Your task to perform on an android device: check out phone information Image 0: 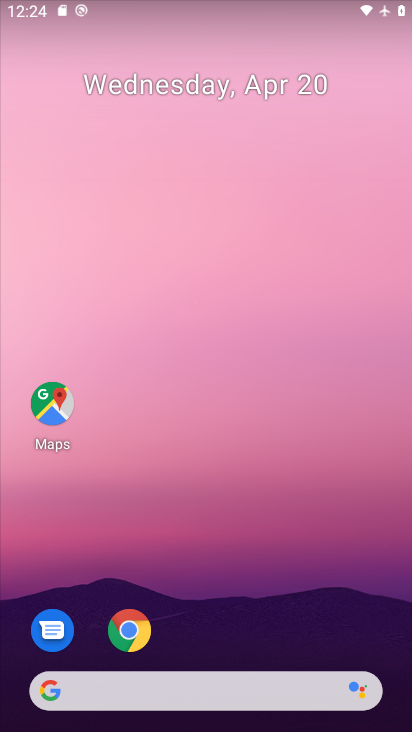
Step 0: drag from (183, 685) to (306, 54)
Your task to perform on an android device: check out phone information Image 1: 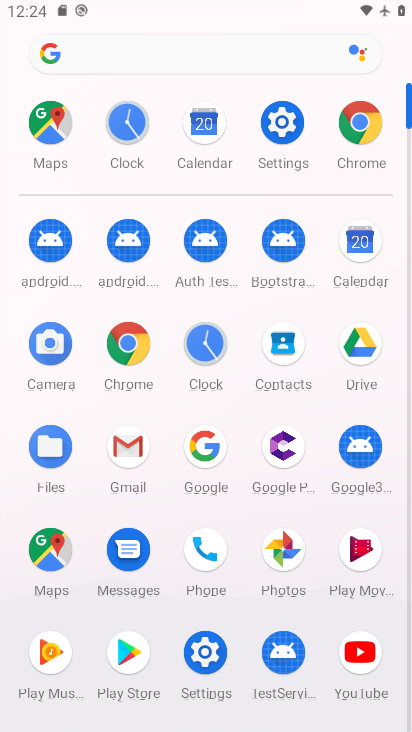
Step 1: click (287, 123)
Your task to perform on an android device: check out phone information Image 2: 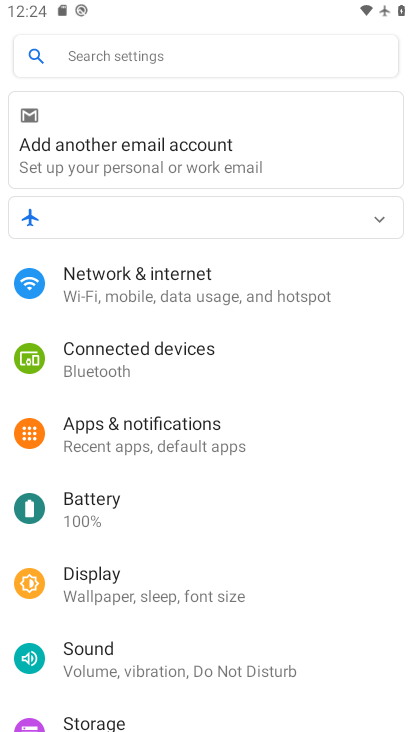
Step 2: drag from (212, 629) to (303, 84)
Your task to perform on an android device: check out phone information Image 3: 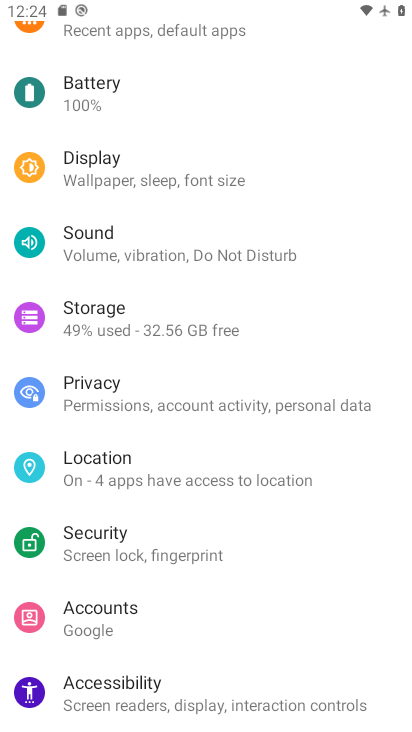
Step 3: drag from (193, 637) to (297, 143)
Your task to perform on an android device: check out phone information Image 4: 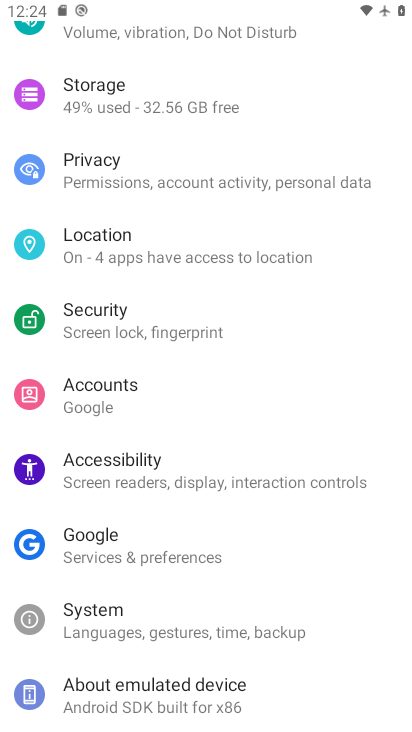
Step 4: click (145, 681)
Your task to perform on an android device: check out phone information Image 5: 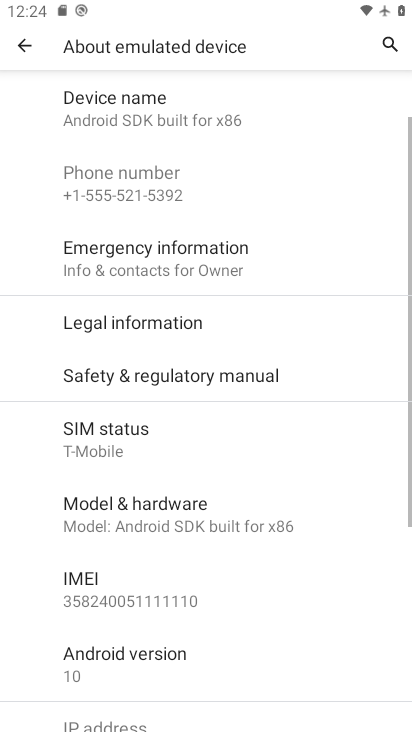
Step 5: task complete